Your task to perform on an android device: Is it going to rain today? Image 0: 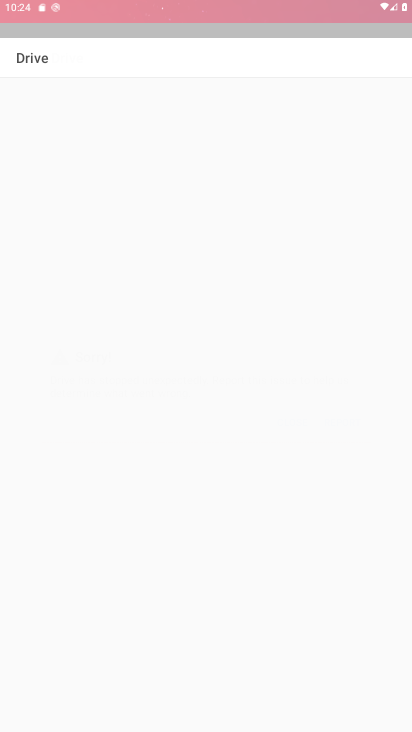
Step 0: click (380, 176)
Your task to perform on an android device: Is it going to rain today? Image 1: 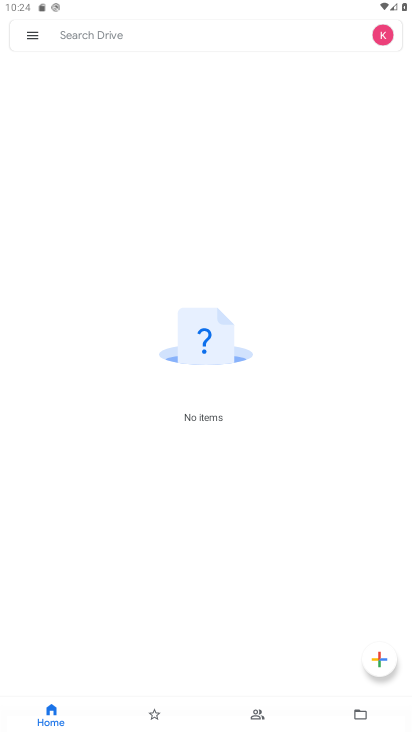
Step 1: drag from (285, 576) to (295, 72)
Your task to perform on an android device: Is it going to rain today? Image 2: 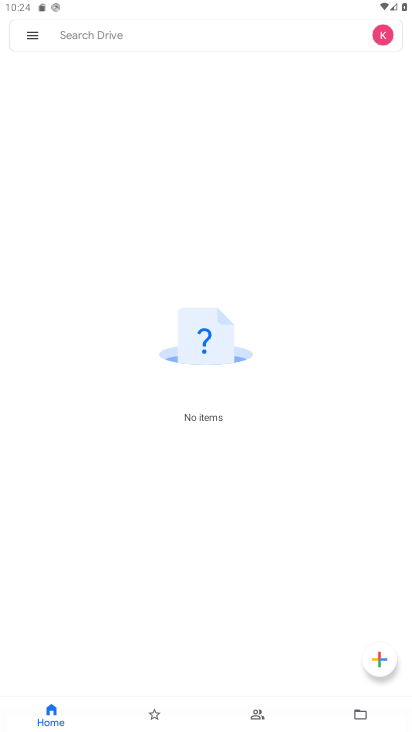
Step 2: press home button
Your task to perform on an android device: Is it going to rain today? Image 3: 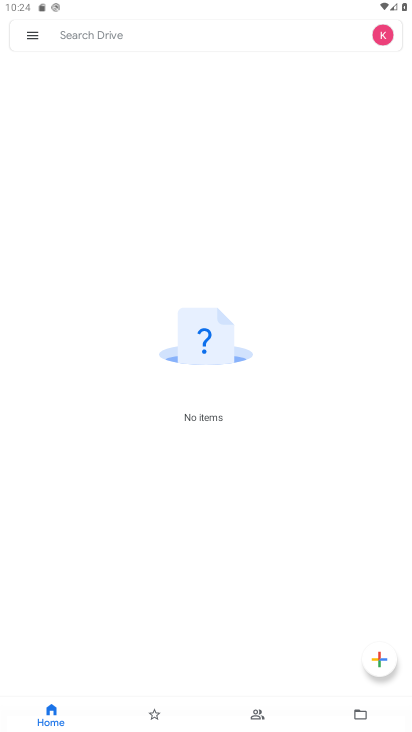
Step 3: press home button
Your task to perform on an android device: Is it going to rain today? Image 4: 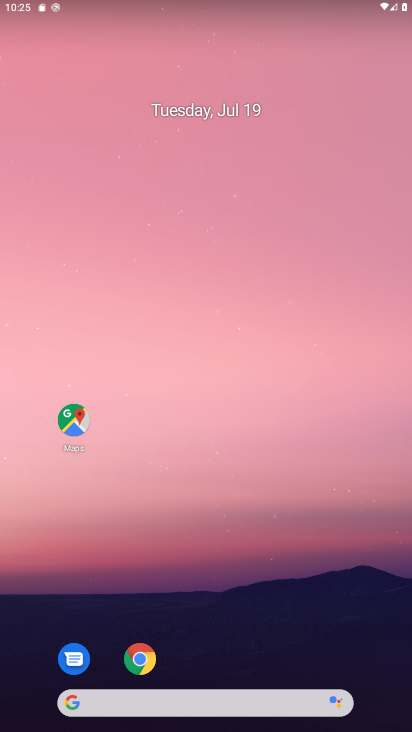
Step 4: drag from (206, 675) to (263, 69)
Your task to perform on an android device: Is it going to rain today? Image 5: 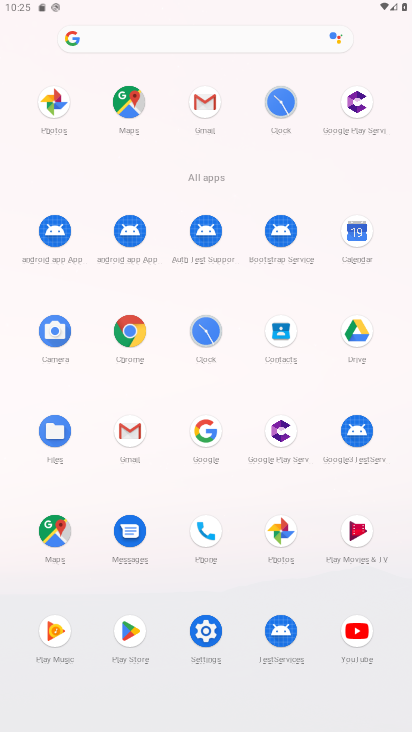
Step 5: click (185, 37)
Your task to perform on an android device: Is it going to rain today? Image 6: 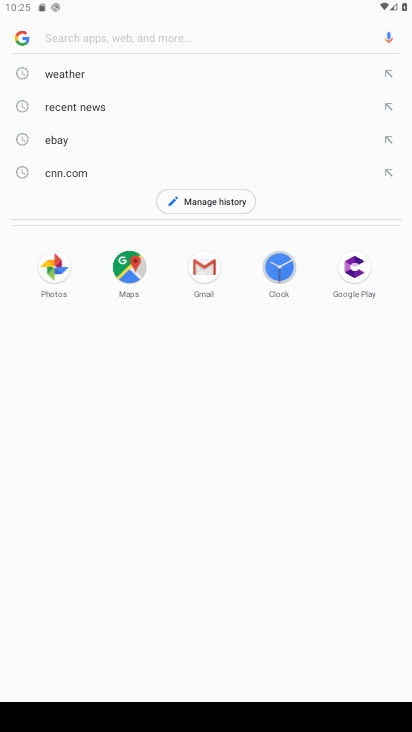
Step 6: type "Is it going to rain today?"
Your task to perform on an android device: Is it going to rain today? Image 7: 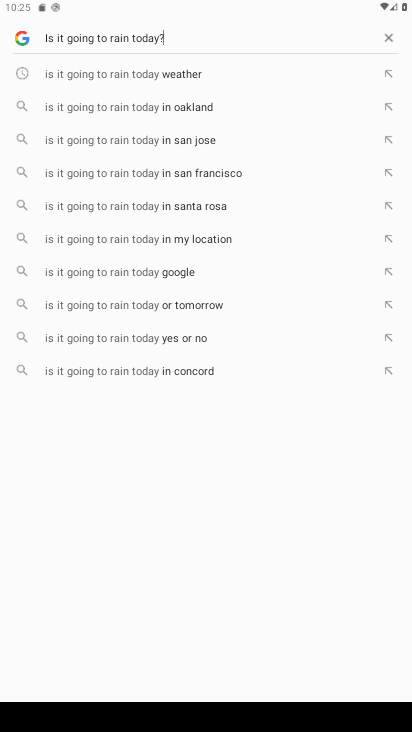
Step 7: click (170, 271)
Your task to perform on an android device: Is it going to rain today? Image 8: 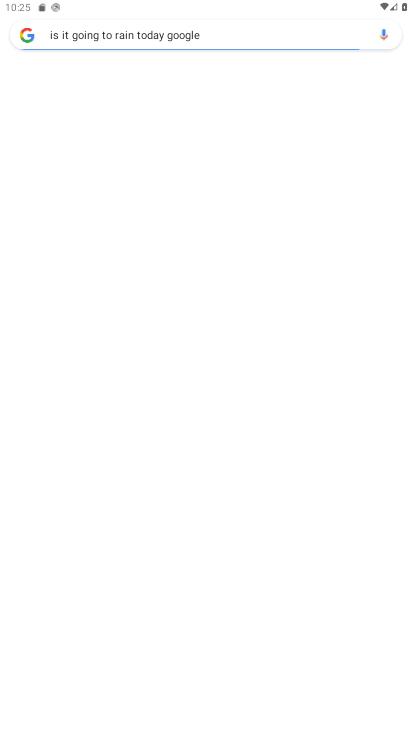
Step 8: task complete